Your task to perform on an android device: add a label to a message in the gmail app Image 0: 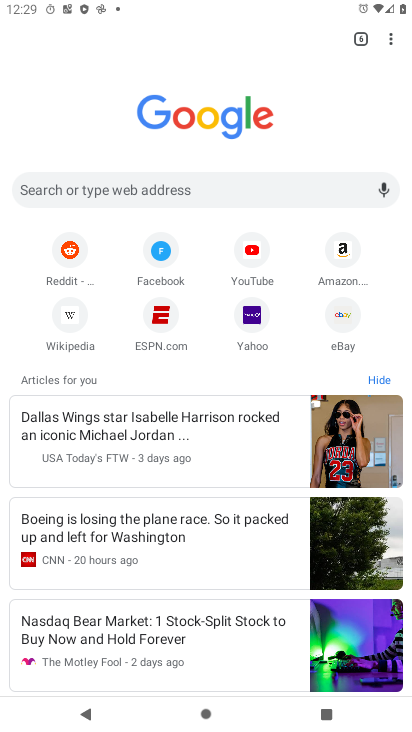
Step 0: press home button
Your task to perform on an android device: add a label to a message in the gmail app Image 1: 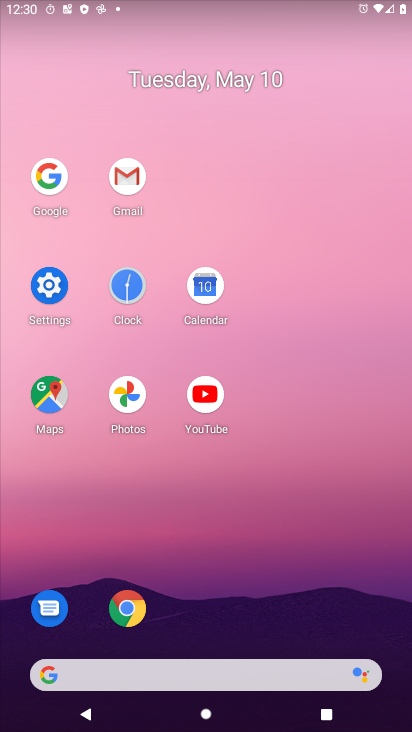
Step 1: click (133, 176)
Your task to perform on an android device: add a label to a message in the gmail app Image 2: 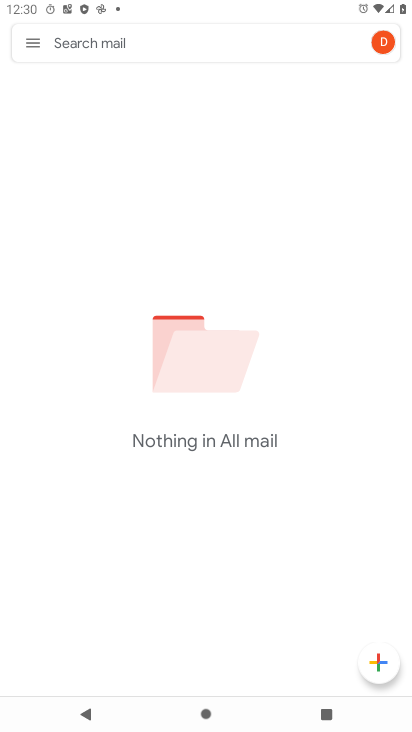
Step 2: click (32, 65)
Your task to perform on an android device: add a label to a message in the gmail app Image 3: 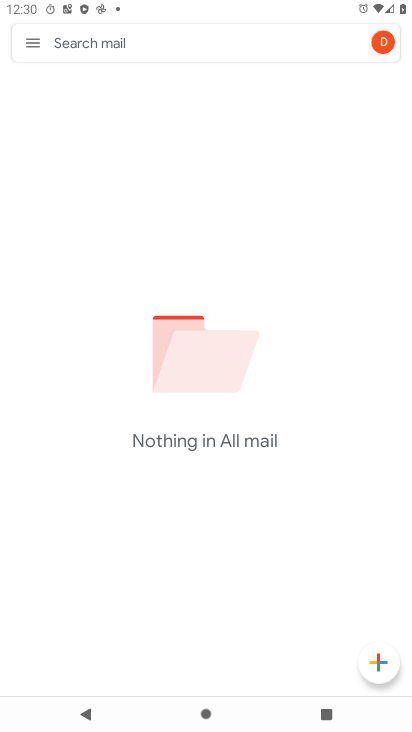
Step 3: click (27, 52)
Your task to perform on an android device: add a label to a message in the gmail app Image 4: 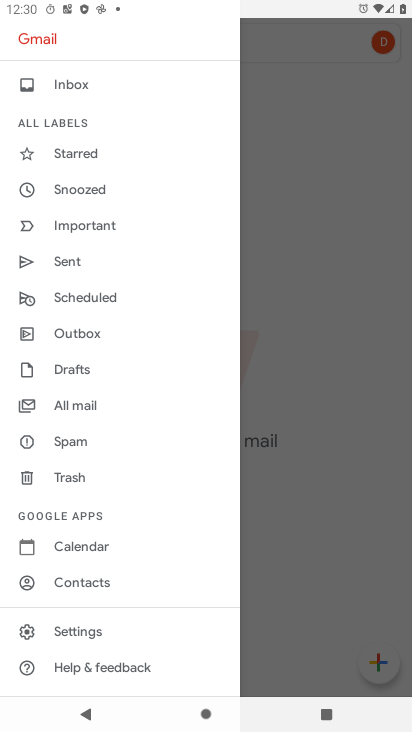
Step 4: click (118, 409)
Your task to perform on an android device: add a label to a message in the gmail app Image 5: 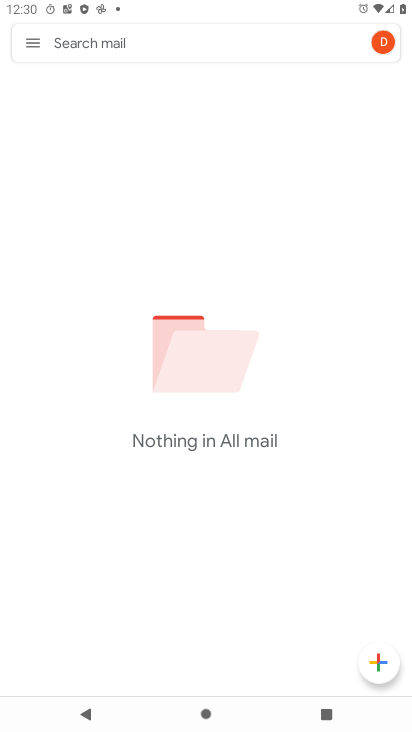
Step 5: task complete